Your task to perform on an android device: allow cookies in the chrome app Image 0: 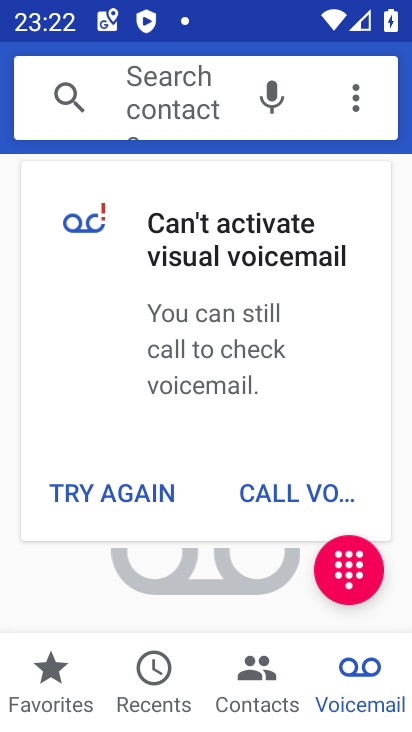
Step 0: press home button
Your task to perform on an android device: allow cookies in the chrome app Image 1: 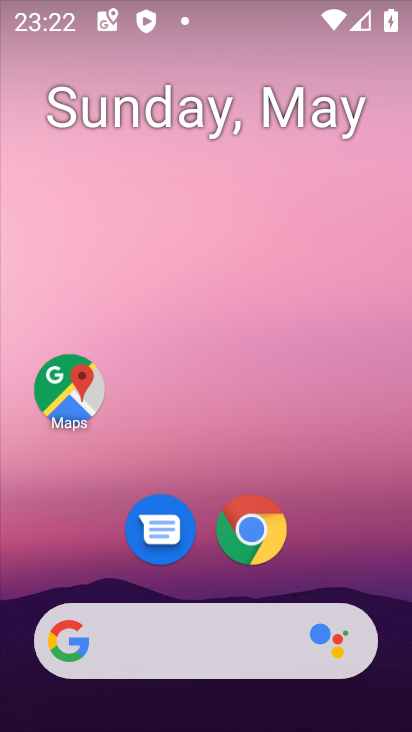
Step 1: click (234, 553)
Your task to perform on an android device: allow cookies in the chrome app Image 2: 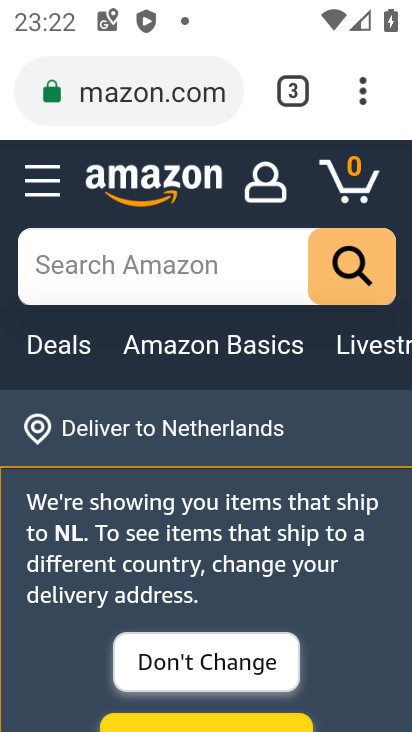
Step 2: task complete